Your task to perform on an android device: toggle location history Image 0: 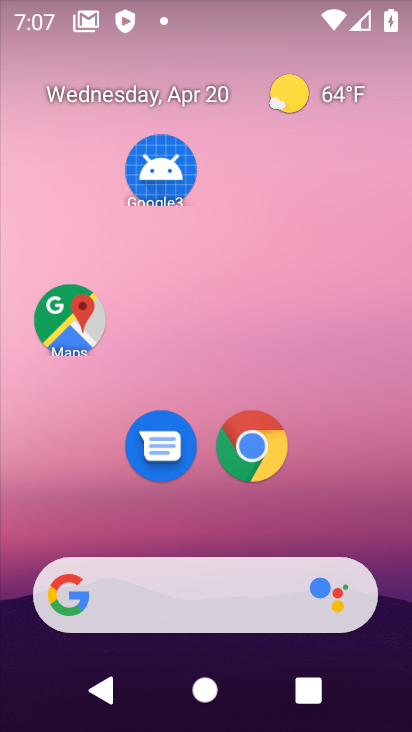
Step 0: click (77, 331)
Your task to perform on an android device: toggle location history Image 1: 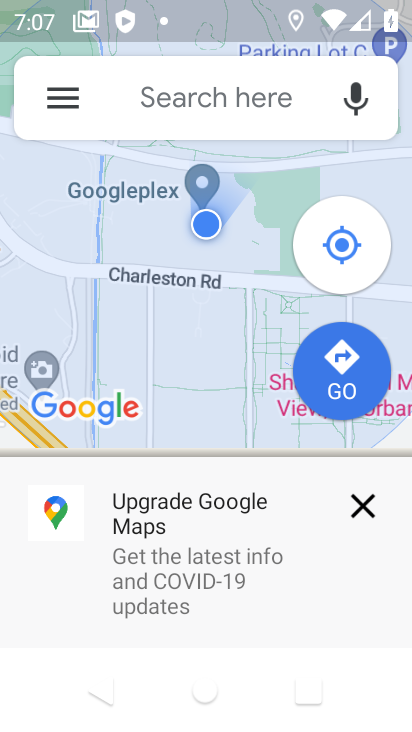
Step 1: click (58, 94)
Your task to perform on an android device: toggle location history Image 2: 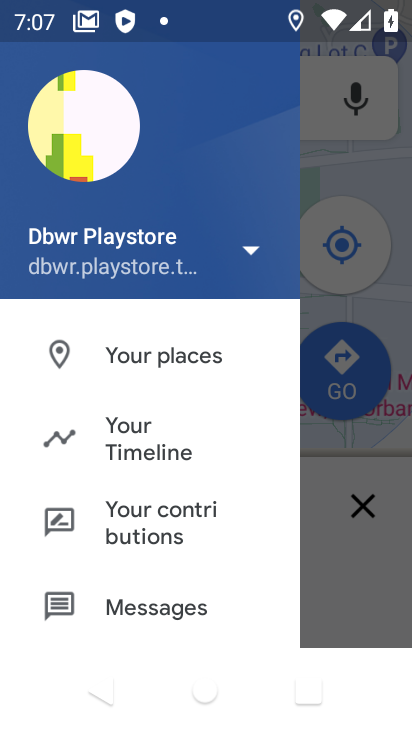
Step 2: click (133, 436)
Your task to perform on an android device: toggle location history Image 3: 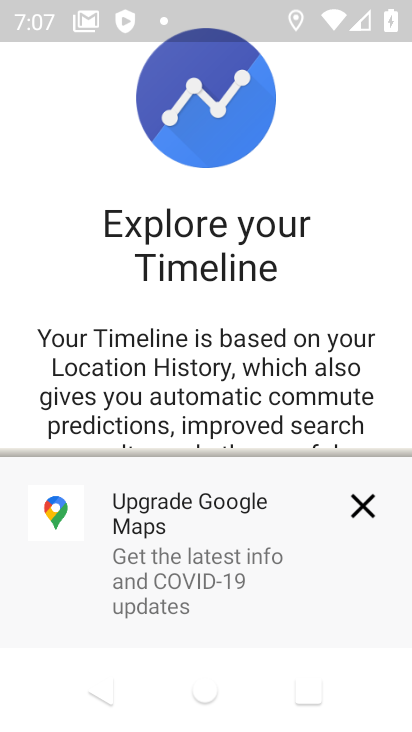
Step 3: click (358, 509)
Your task to perform on an android device: toggle location history Image 4: 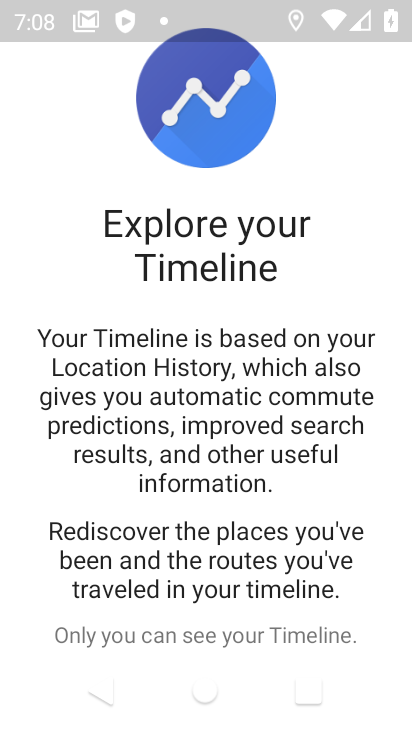
Step 4: drag from (239, 524) to (211, 27)
Your task to perform on an android device: toggle location history Image 5: 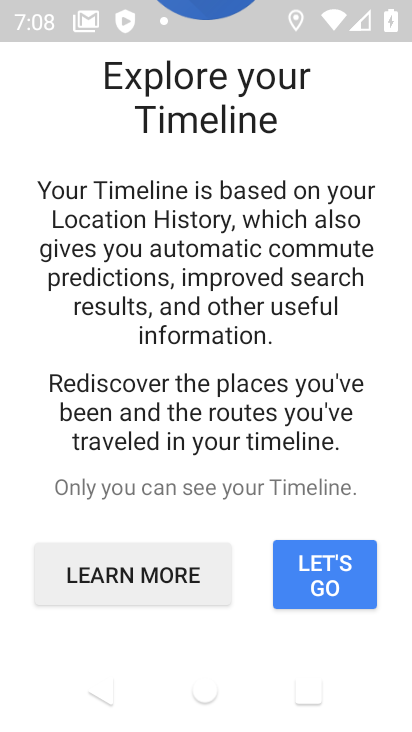
Step 5: click (327, 592)
Your task to perform on an android device: toggle location history Image 6: 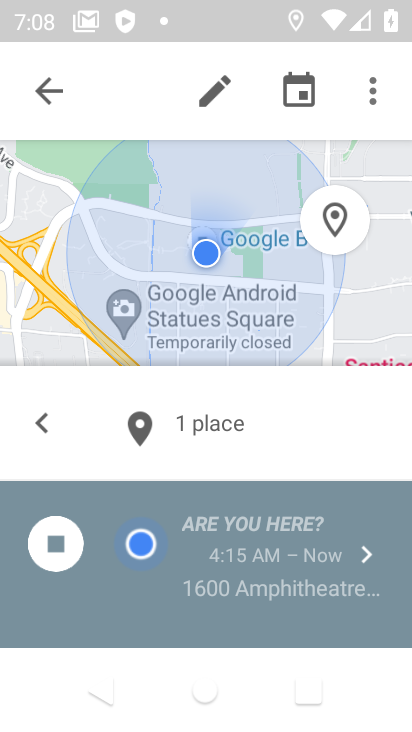
Step 6: click (372, 88)
Your task to perform on an android device: toggle location history Image 7: 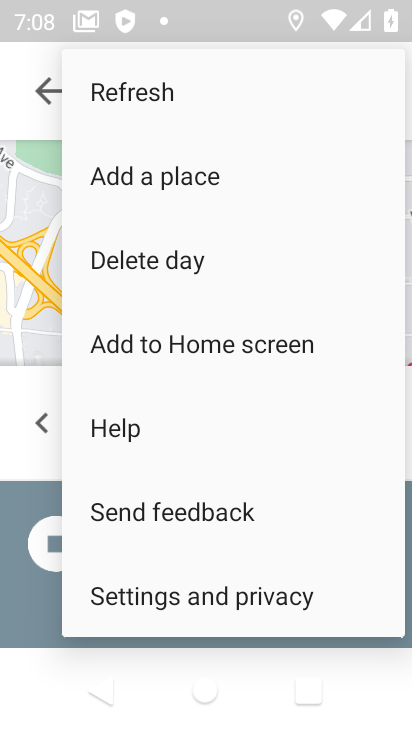
Step 7: click (186, 592)
Your task to perform on an android device: toggle location history Image 8: 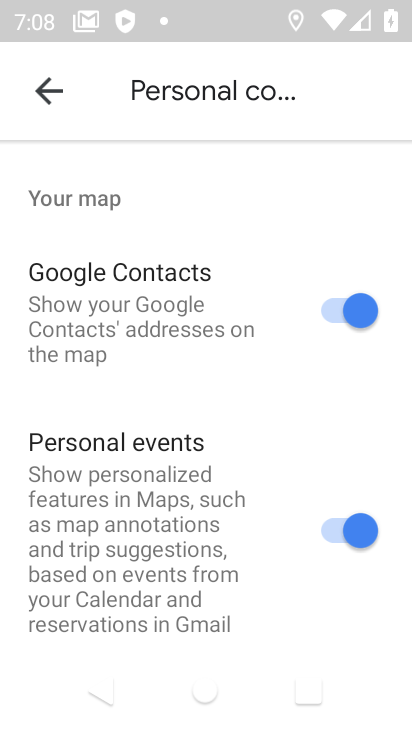
Step 8: drag from (211, 421) to (195, 114)
Your task to perform on an android device: toggle location history Image 9: 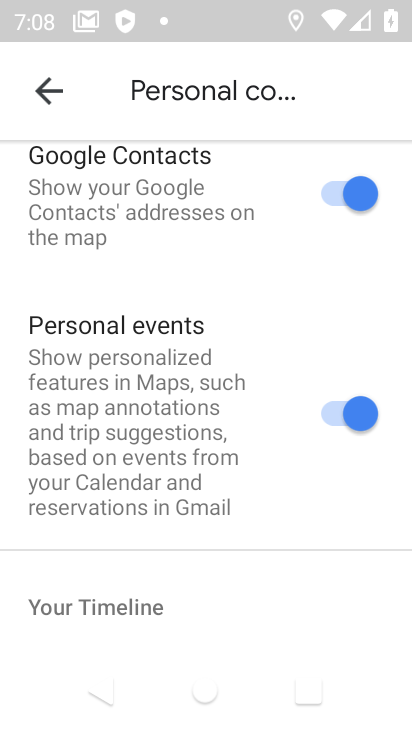
Step 9: drag from (248, 504) to (223, 143)
Your task to perform on an android device: toggle location history Image 10: 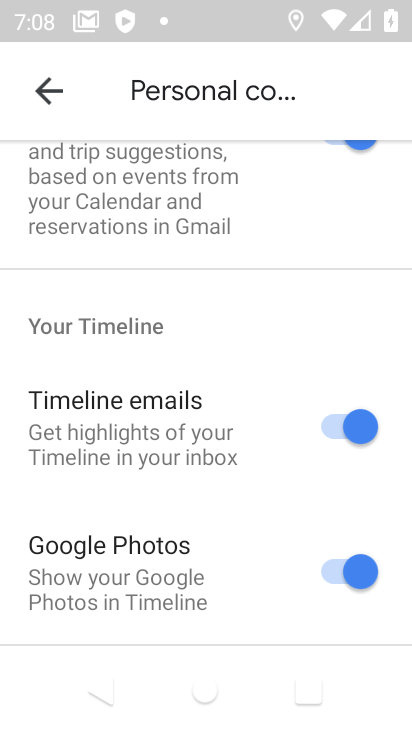
Step 10: drag from (210, 502) to (182, 239)
Your task to perform on an android device: toggle location history Image 11: 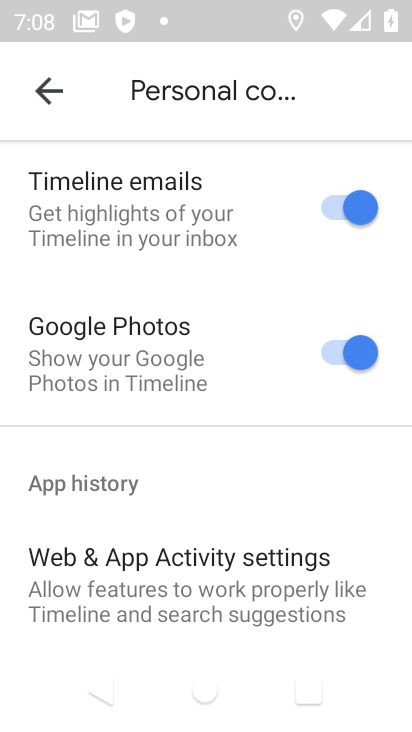
Step 11: click (48, 89)
Your task to perform on an android device: toggle location history Image 12: 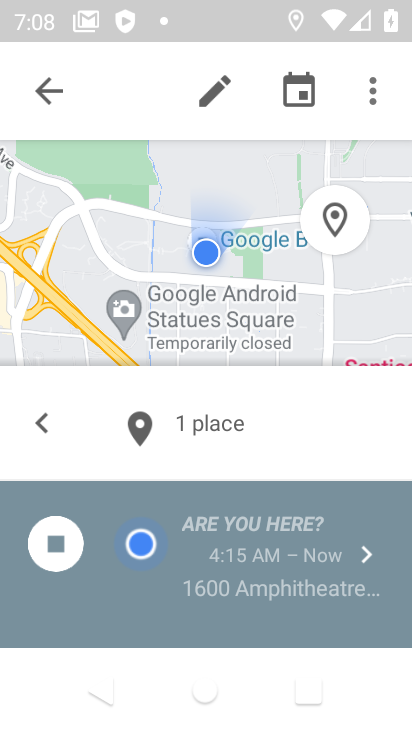
Step 12: click (373, 94)
Your task to perform on an android device: toggle location history Image 13: 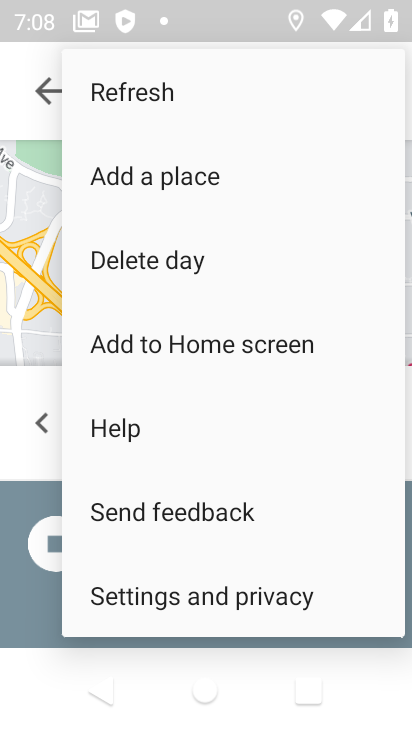
Step 13: click (228, 603)
Your task to perform on an android device: toggle location history Image 14: 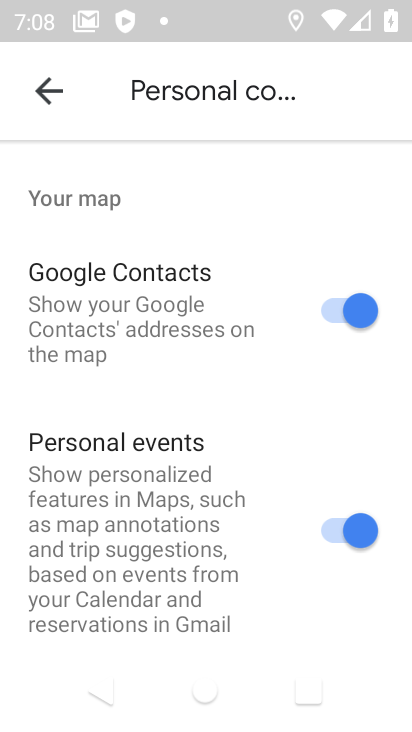
Step 14: drag from (263, 591) to (271, 207)
Your task to perform on an android device: toggle location history Image 15: 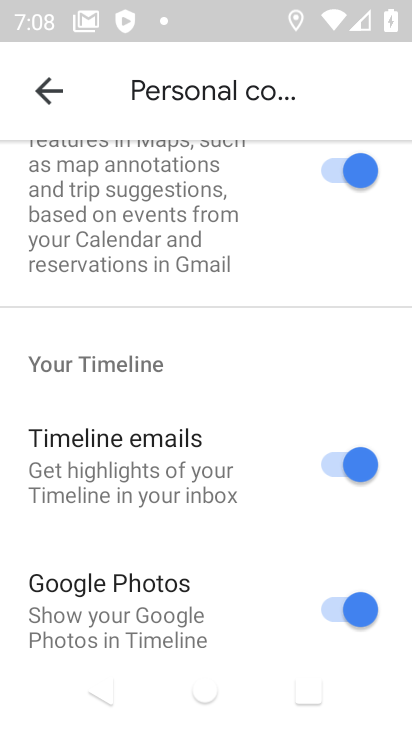
Step 15: drag from (250, 574) to (293, 168)
Your task to perform on an android device: toggle location history Image 16: 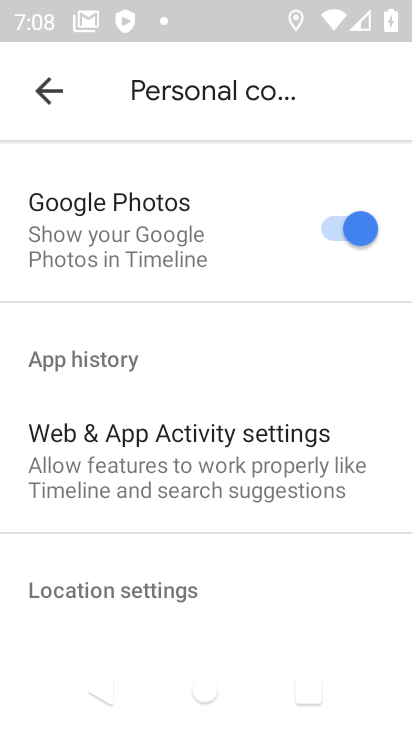
Step 16: drag from (237, 533) to (257, 87)
Your task to perform on an android device: toggle location history Image 17: 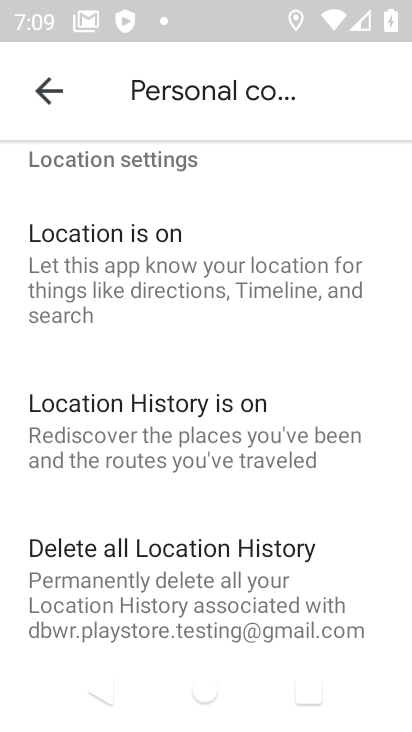
Step 17: click (143, 402)
Your task to perform on an android device: toggle location history Image 18: 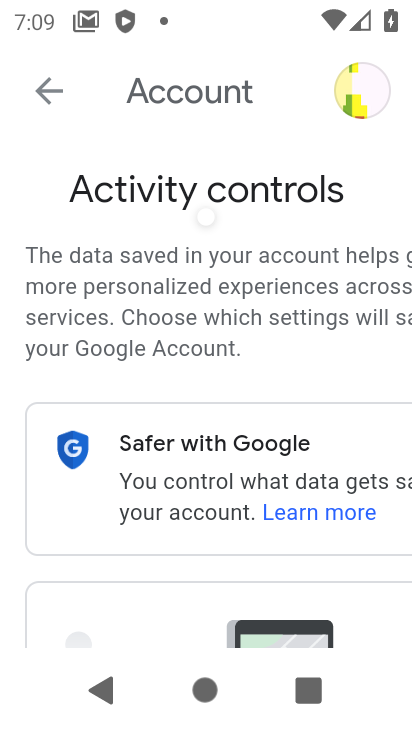
Step 18: drag from (158, 585) to (166, 161)
Your task to perform on an android device: toggle location history Image 19: 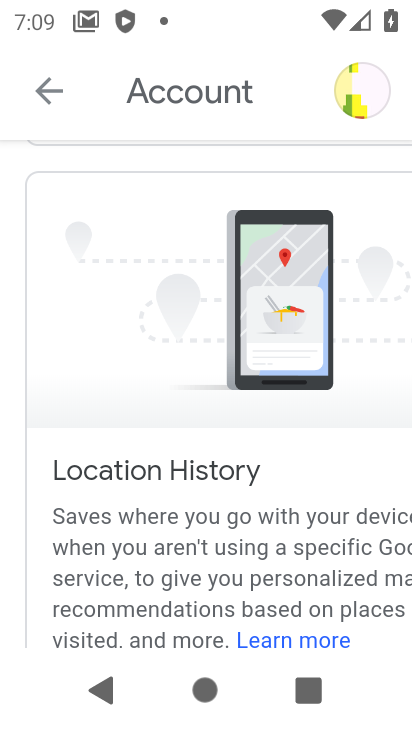
Step 19: drag from (201, 593) to (133, 129)
Your task to perform on an android device: toggle location history Image 20: 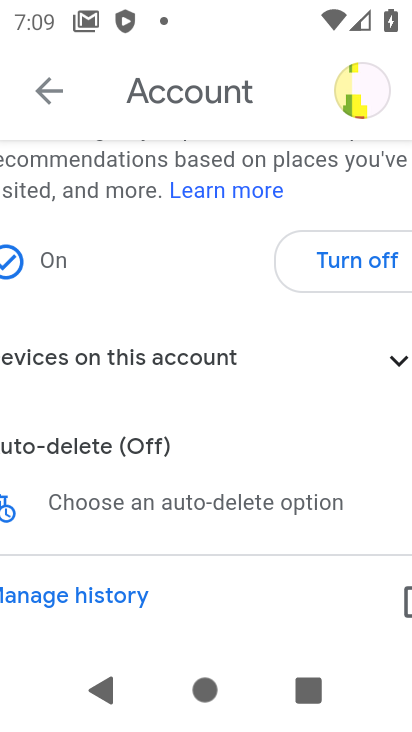
Step 20: drag from (226, 546) to (184, 201)
Your task to perform on an android device: toggle location history Image 21: 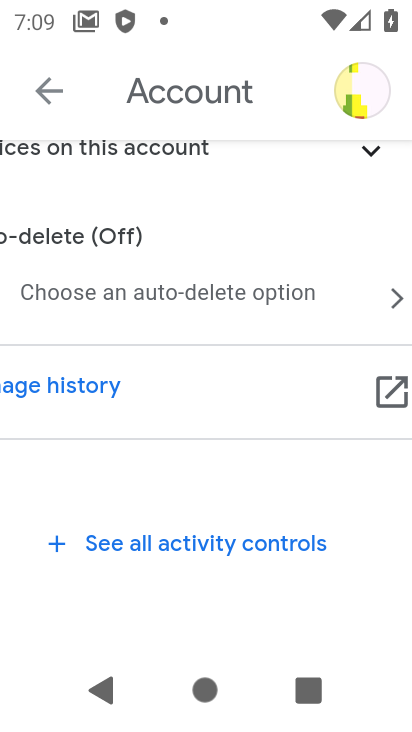
Step 21: drag from (256, 173) to (273, 520)
Your task to perform on an android device: toggle location history Image 22: 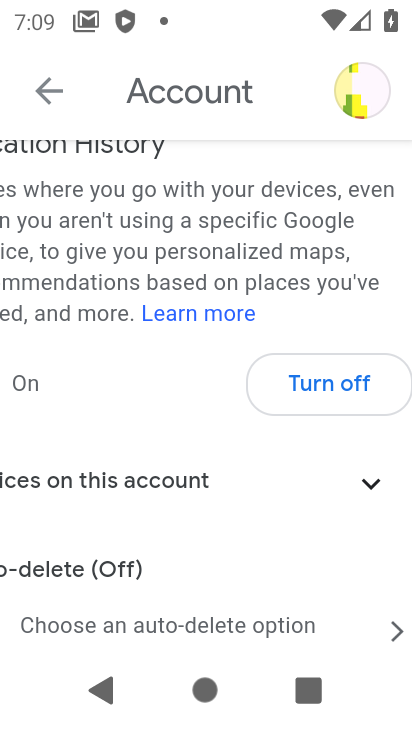
Step 22: click (312, 385)
Your task to perform on an android device: toggle location history Image 23: 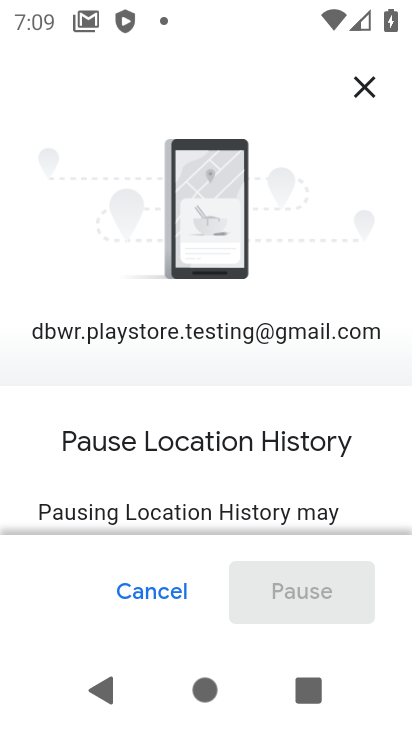
Step 23: drag from (220, 459) to (209, 235)
Your task to perform on an android device: toggle location history Image 24: 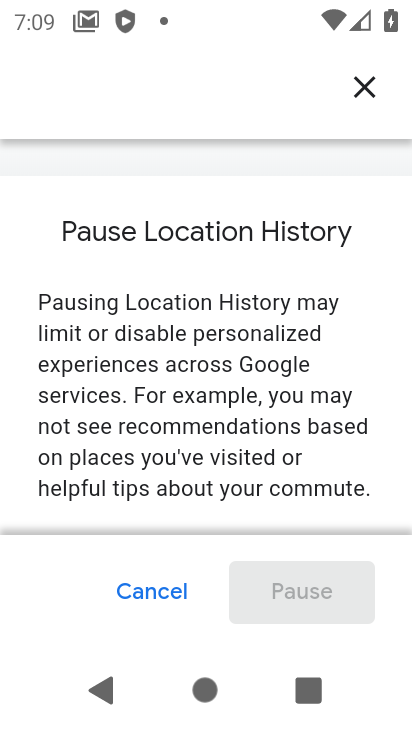
Step 24: drag from (245, 493) to (336, 0)
Your task to perform on an android device: toggle location history Image 25: 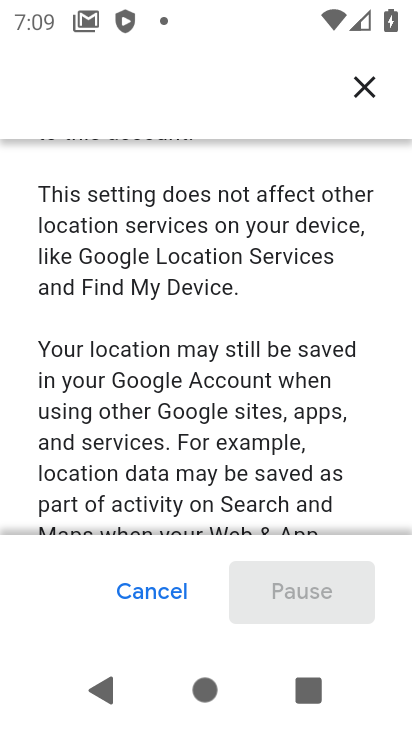
Step 25: drag from (243, 496) to (261, 183)
Your task to perform on an android device: toggle location history Image 26: 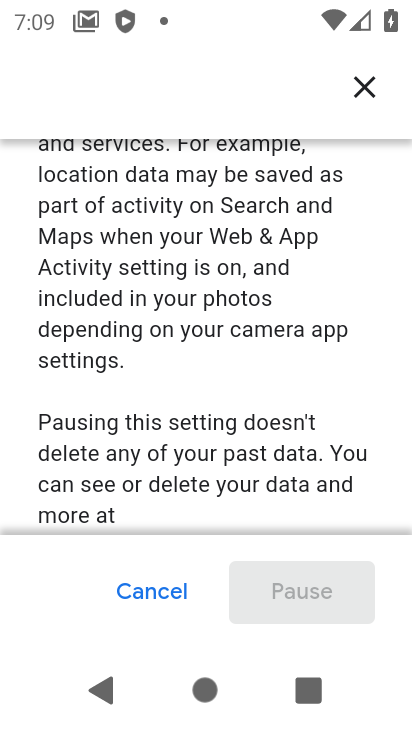
Step 26: drag from (218, 492) to (204, 65)
Your task to perform on an android device: toggle location history Image 27: 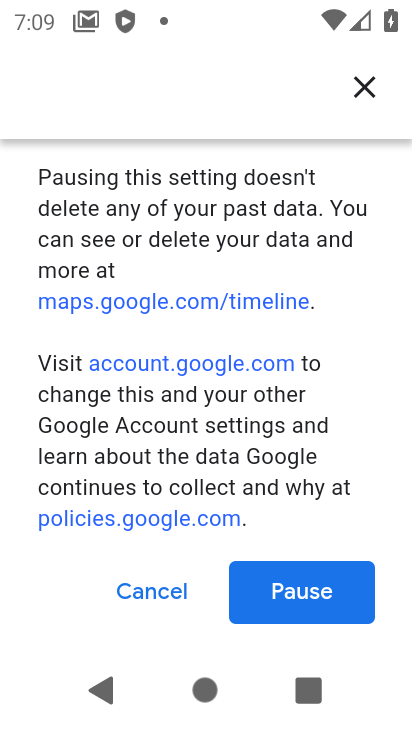
Step 27: click (295, 604)
Your task to perform on an android device: toggle location history Image 28: 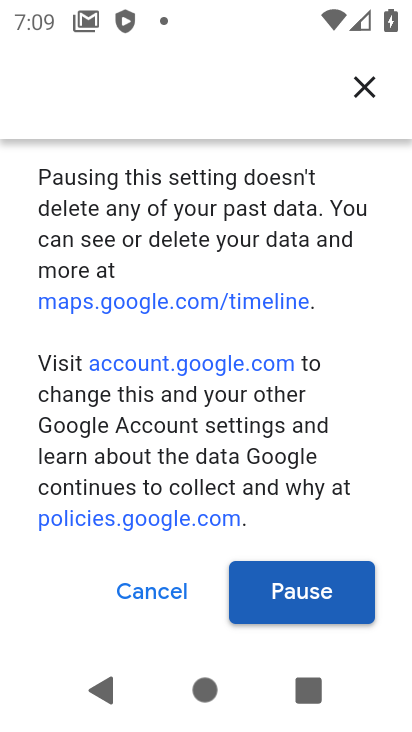
Step 28: click (275, 597)
Your task to perform on an android device: toggle location history Image 29: 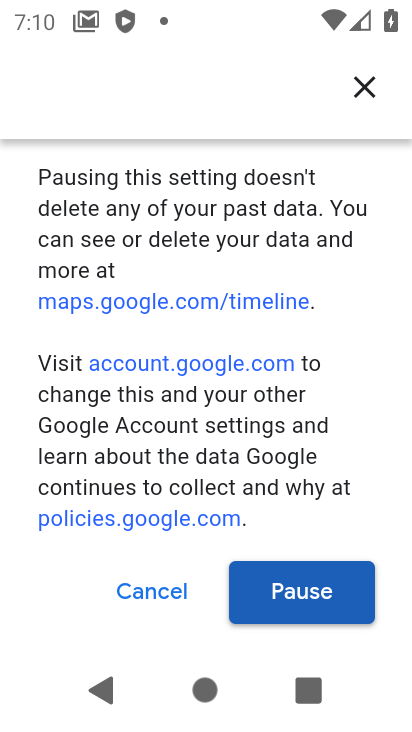
Step 29: click (304, 586)
Your task to perform on an android device: toggle location history Image 30: 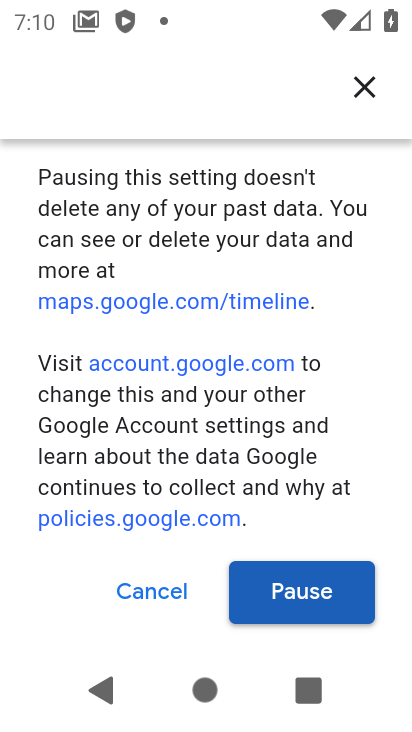
Step 30: click (313, 590)
Your task to perform on an android device: toggle location history Image 31: 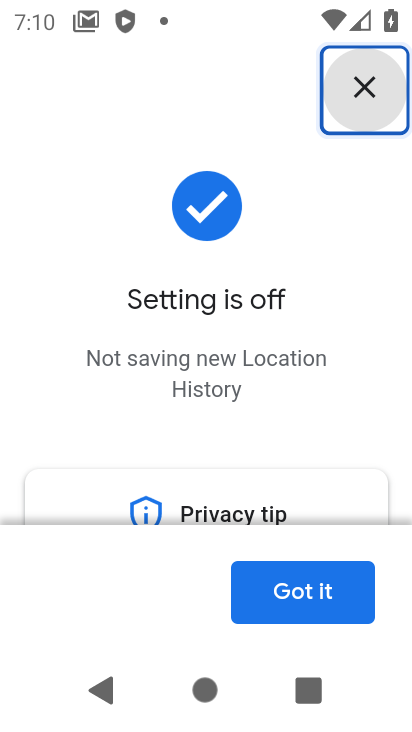
Step 31: click (307, 602)
Your task to perform on an android device: toggle location history Image 32: 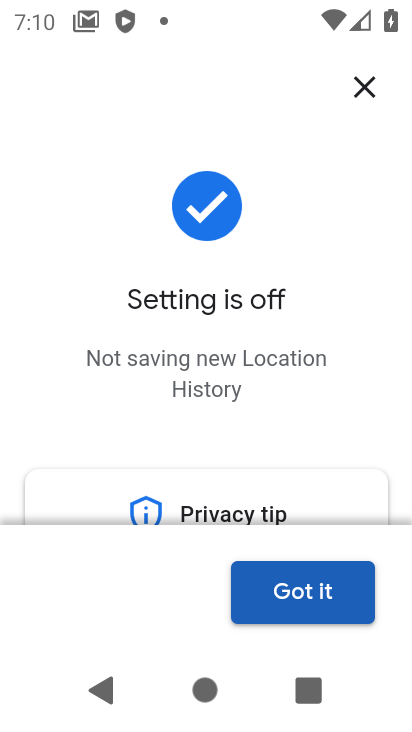
Step 32: click (287, 591)
Your task to perform on an android device: toggle location history Image 33: 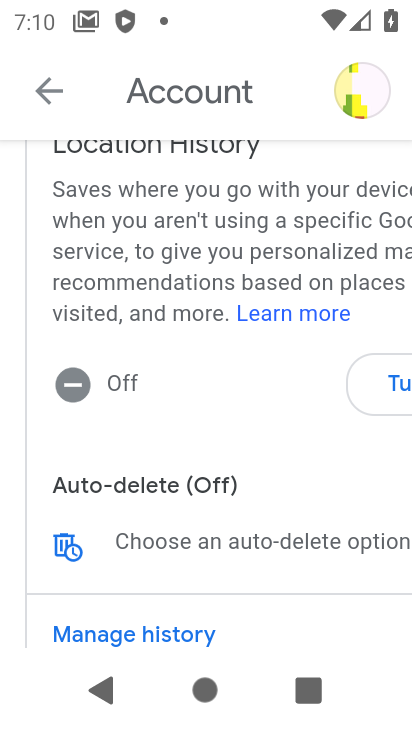
Step 33: task complete